Your task to perform on an android device: Open privacy settings Image 0: 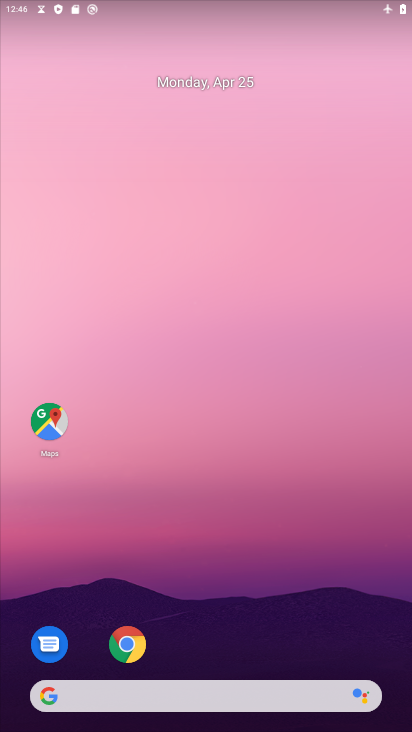
Step 0: drag from (343, 649) to (363, 8)
Your task to perform on an android device: Open privacy settings Image 1: 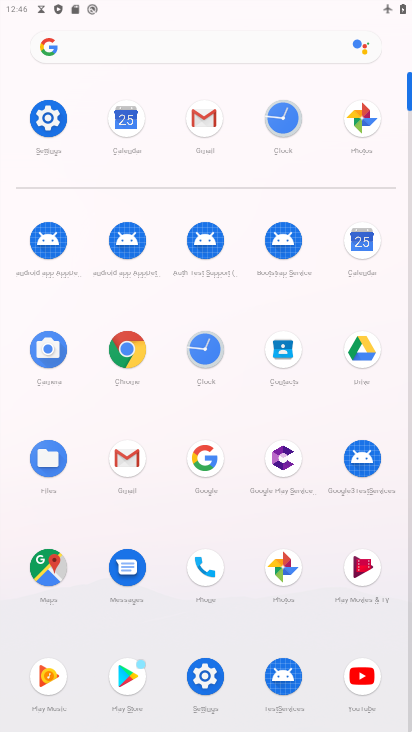
Step 1: click (48, 123)
Your task to perform on an android device: Open privacy settings Image 2: 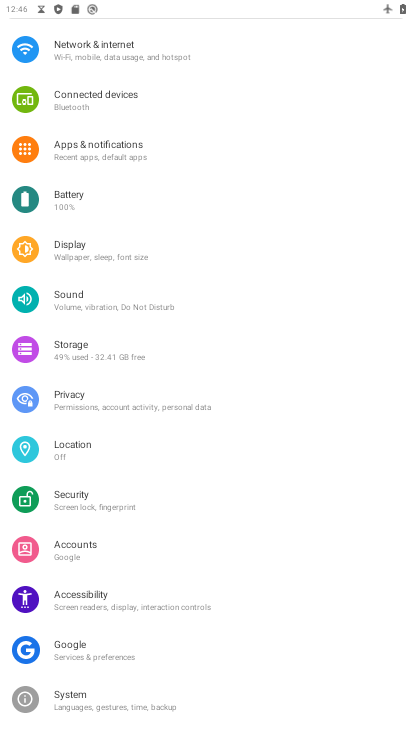
Step 2: click (66, 407)
Your task to perform on an android device: Open privacy settings Image 3: 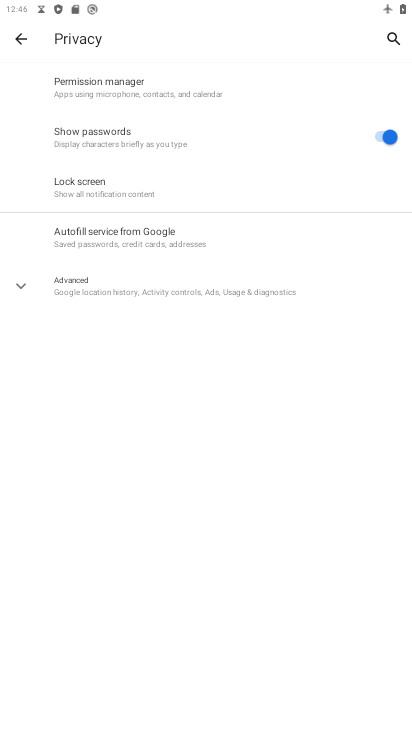
Step 3: task complete